Your task to perform on an android device: Open Wikipedia Image 0: 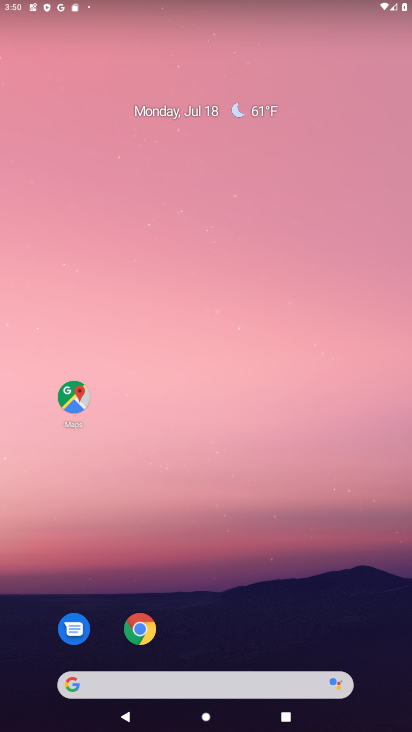
Step 0: drag from (246, 672) to (257, 421)
Your task to perform on an android device: Open Wikipedia Image 1: 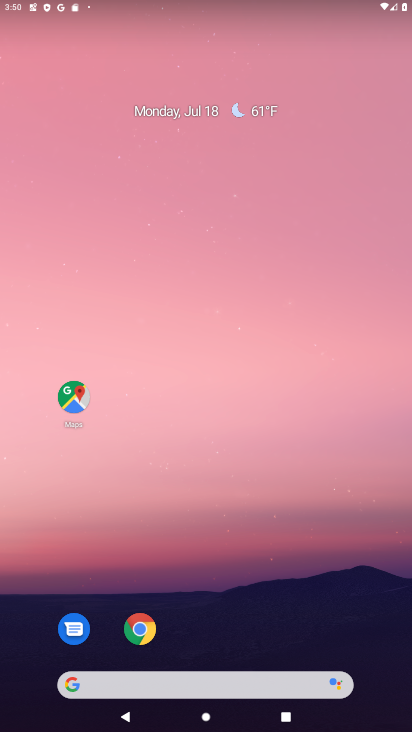
Step 1: drag from (185, 668) to (206, 442)
Your task to perform on an android device: Open Wikipedia Image 2: 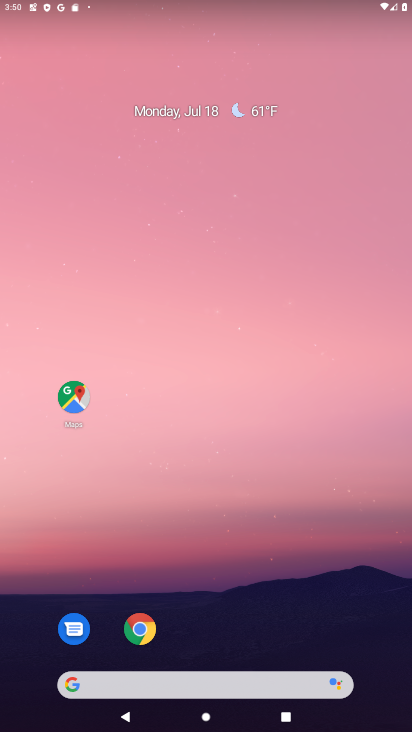
Step 2: drag from (176, 599) to (206, 418)
Your task to perform on an android device: Open Wikipedia Image 3: 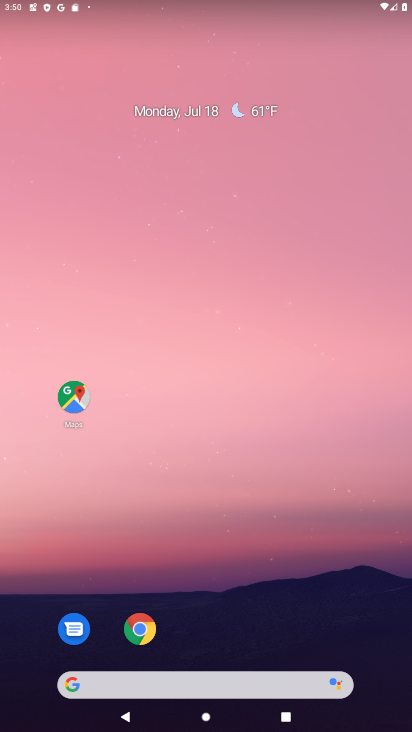
Step 3: drag from (158, 615) to (257, 266)
Your task to perform on an android device: Open Wikipedia Image 4: 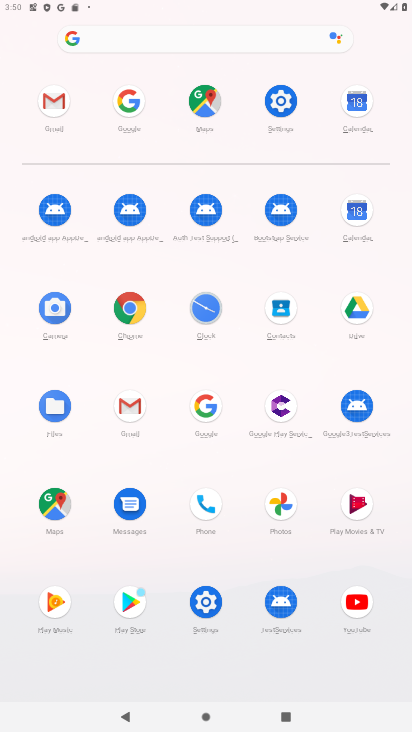
Step 4: click (134, 310)
Your task to perform on an android device: Open Wikipedia Image 5: 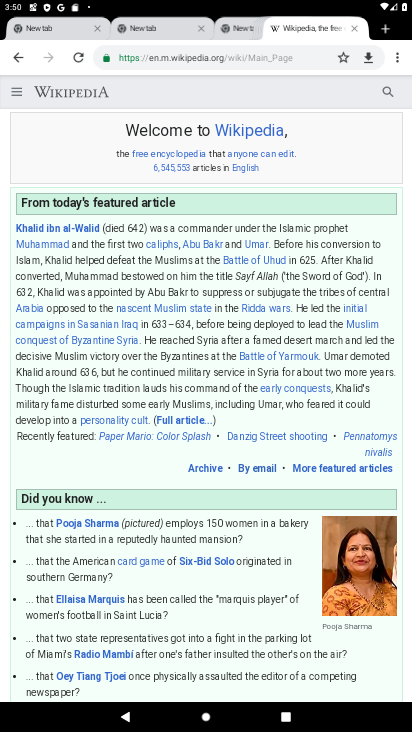
Step 5: task complete